Your task to perform on an android device: turn on improve location accuracy Image 0: 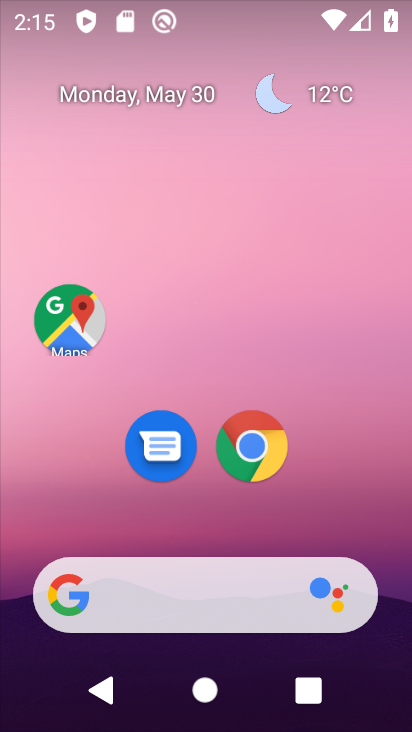
Step 0: drag from (337, 527) to (287, 193)
Your task to perform on an android device: turn on improve location accuracy Image 1: 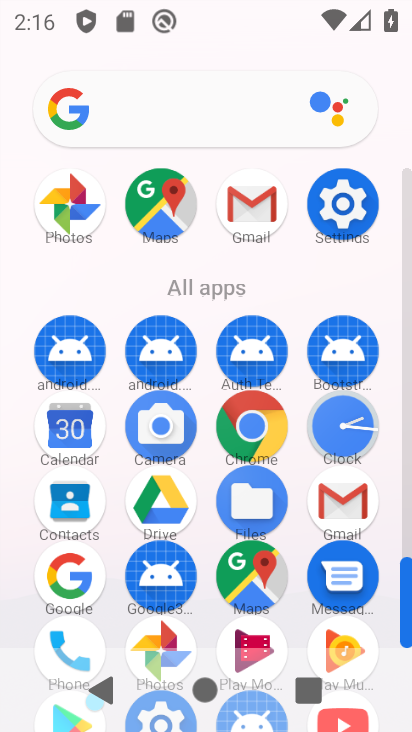
Step 1: click (342, 206)
Your task to perform on an android device: turn on improve location accuracy Image 2: 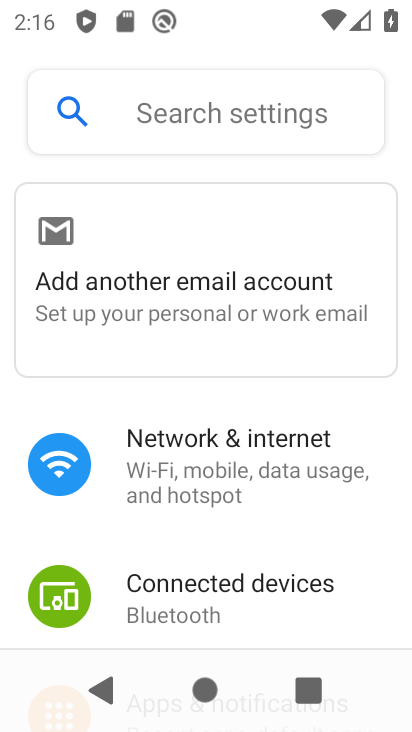
Step 2: drag from (193, 519) to (229, 421)
Your task to perform on an android device: turn on improve location accuracy Image 3: 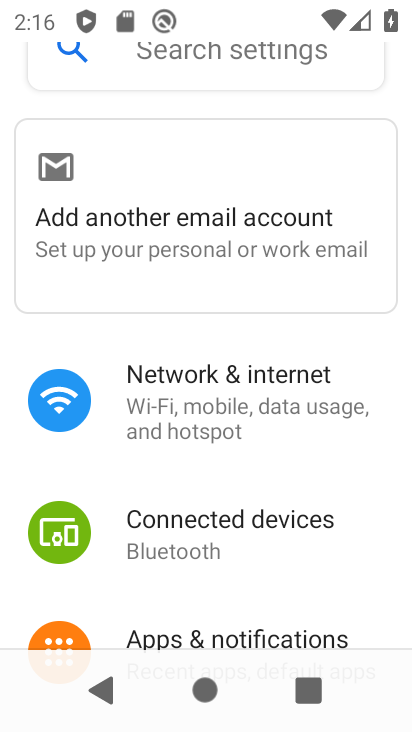
Step 3: drag from (205, 499) to (244, 352)
Your task to perform on an android device: turn on improve location accuracy Image 4: 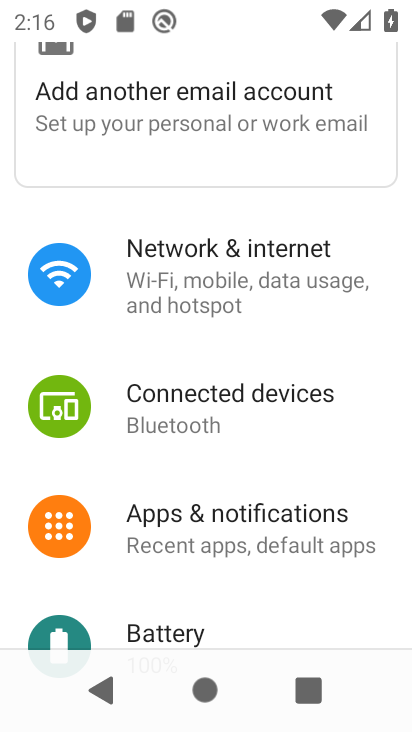
Step 4: drag from (208, 480) to (233, 382)
Your task to perform on an android device: turn on improve location accuracy Image 5: 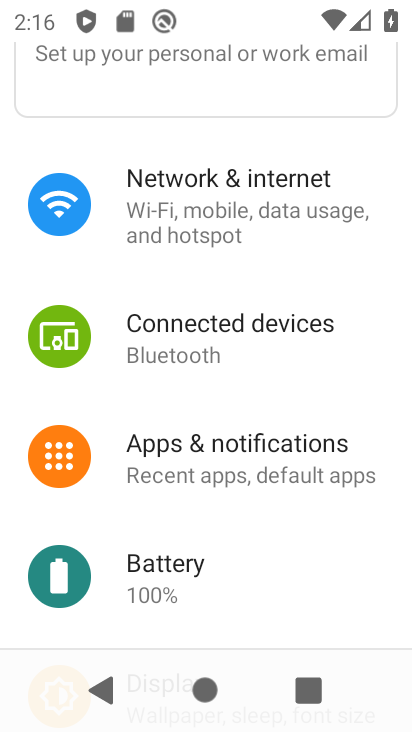
Step 5: drag from (197, 509) to (220, 434)
Your task to perform on an android device: turn on improve location accuracy Image 6: 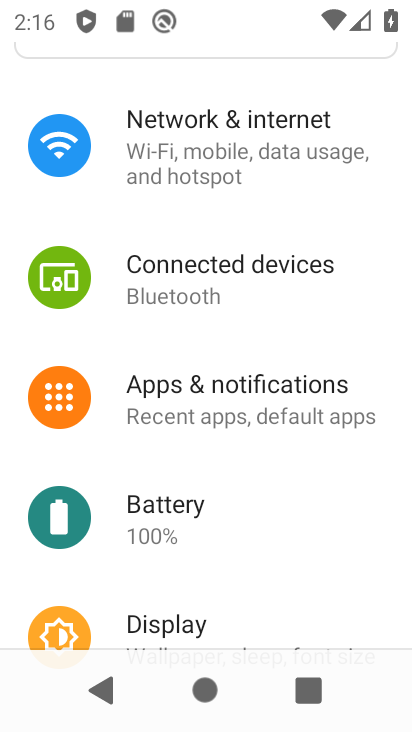
Step 6: drag from (209, 455) to (221, 379)
Your task to perform on an android device: turn on improve location accuracy Image 7: 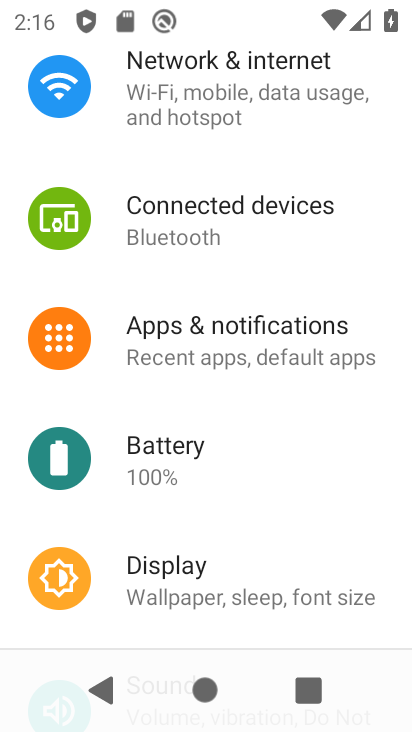
Step 7: drag from (180, 417) to (197, 349)
Your task to perform on an android device: turn on improve location accuracy Image 8: 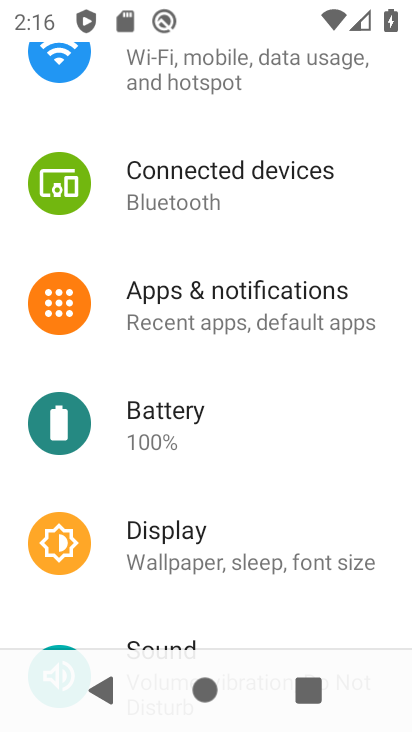
Step 8: drag from (204, 501) to (242, 408)
Your task to perform on an android device: turn on improve location accuracy Image 9: 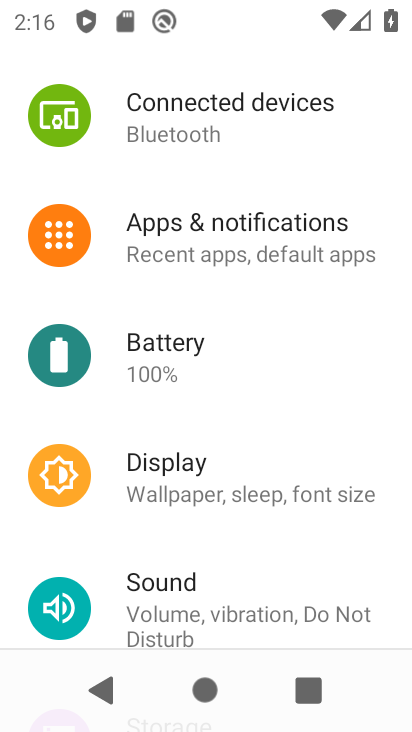
Step 9: drag from (247, 549) to (273, 446)
Your task to perform on an android device: turn on improve location accuracy Image 10: 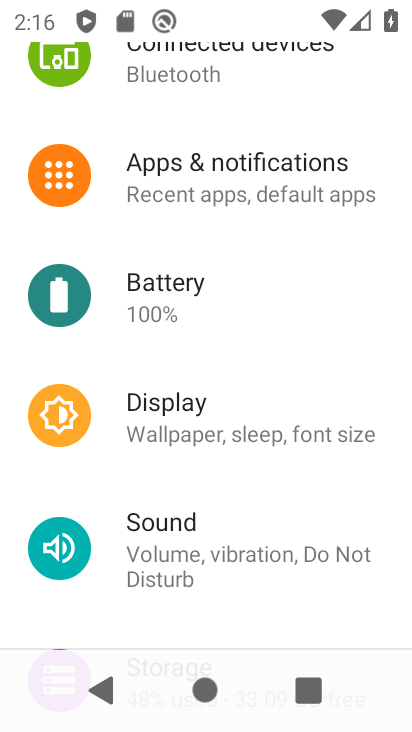
Step 10: drag from (213, 588) to (266, 430)
Your task to perform on an android device: turn on improve location accuracy Image 11: 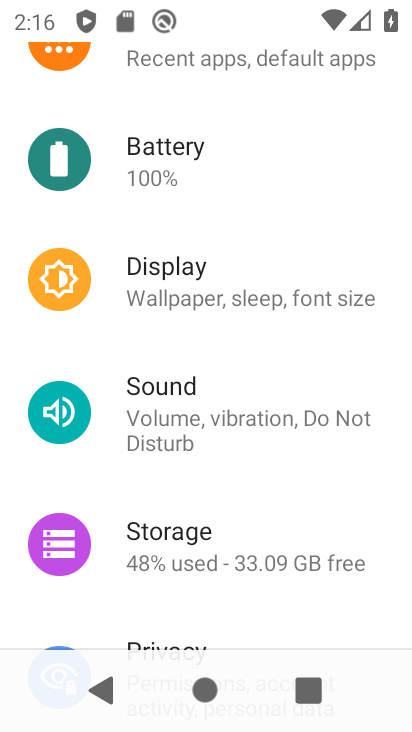
Step 11: drag from (251, 500) to (283, 388)
Your task to perform on an android device: turn on improve location accuracy Image 12: 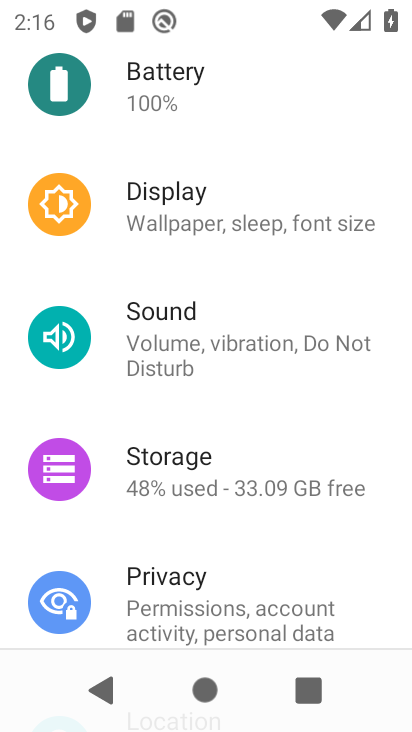
Step 12: drag from (228, 550) to (289, 426)
Your task to perform on an android device: turn on improve location accuracy Image 13: 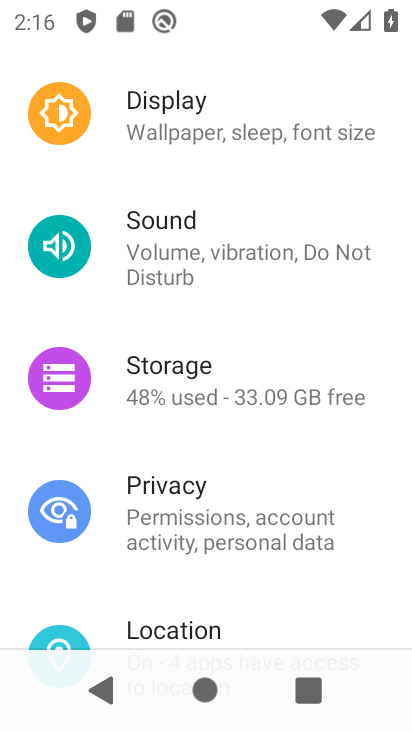
Step 13: drag from (223, 596) to (302, 430)
Your task to perform on an android device: turn on improve location accuracy Image 14: 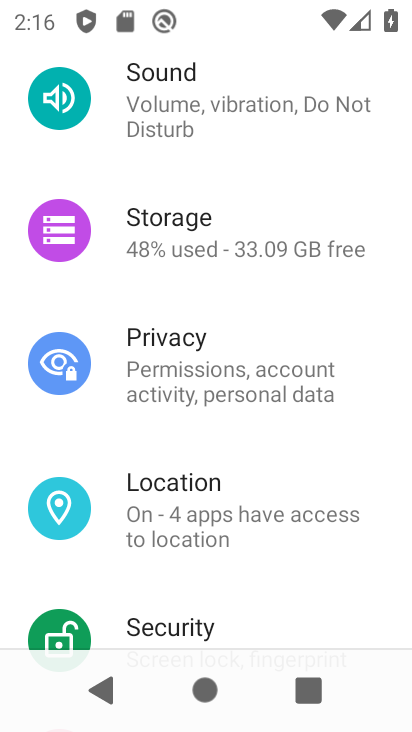
Step 14: click (222, 519)
Your task to perform on an android device: turn on improve location accuracy Image 15: 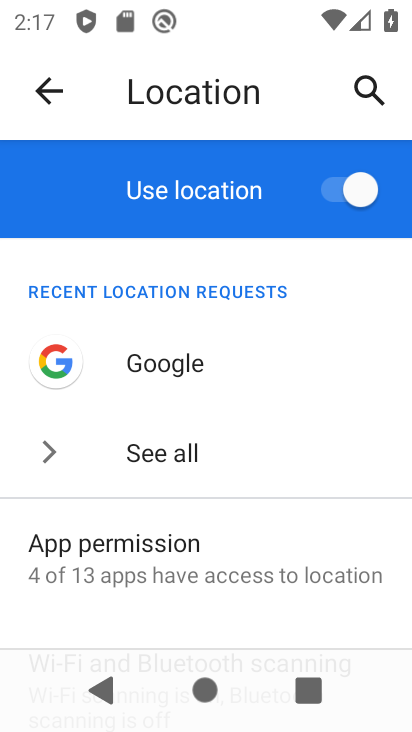
Step 15: drag from (228, 541) to (274, 360)
Your task to perform on an android device: turn on improve location accuracy Image 16: 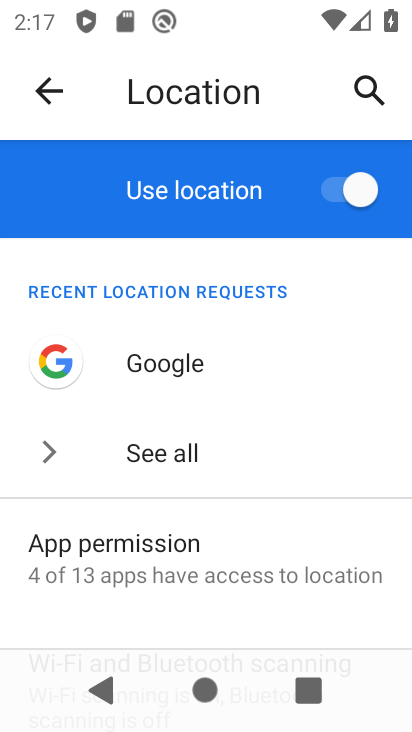
Step 16: drag from (252, 258) to (329, 92)
Your task to perform on an android device: turn on improve location accuracy Image 17: 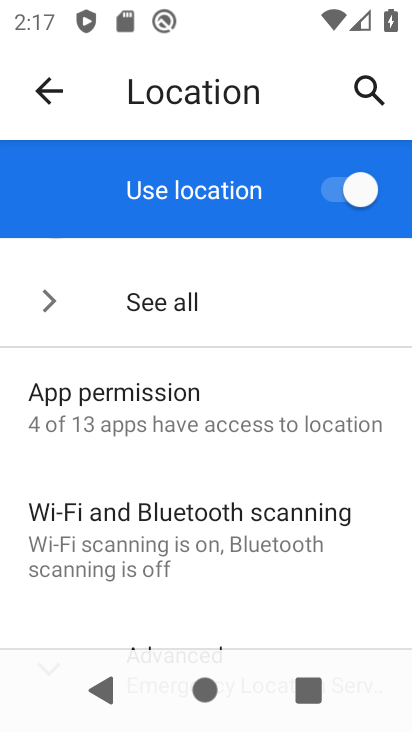
Step 17: drag from (167, 618) to (213, 102)
Your task to perform on an android device: turn on improve location accuracy Image 18: 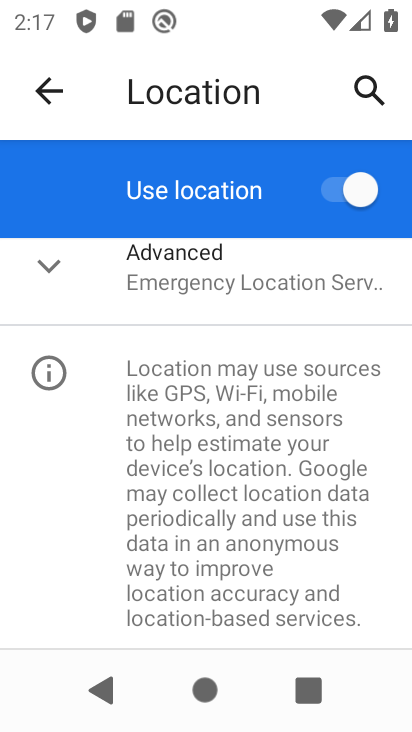
Step 18: click (235, 295)
Your task to perform on an android device: turn on improve location accuracy Image 19: 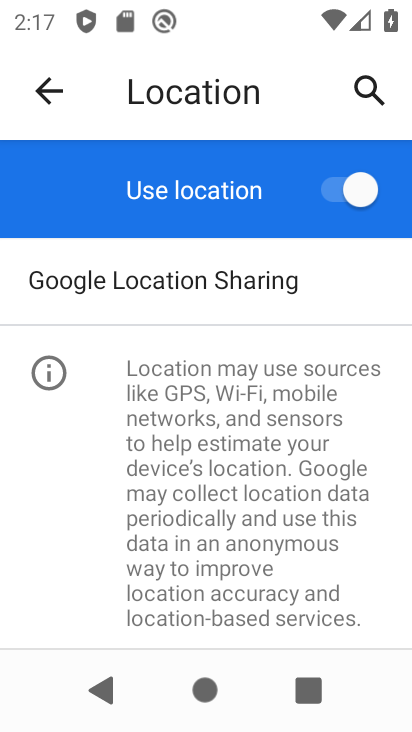
Step 19: drag from (235, 303) to (219, 527)
Your task to perform on an android device: turn on improve location accuracy Image 20: 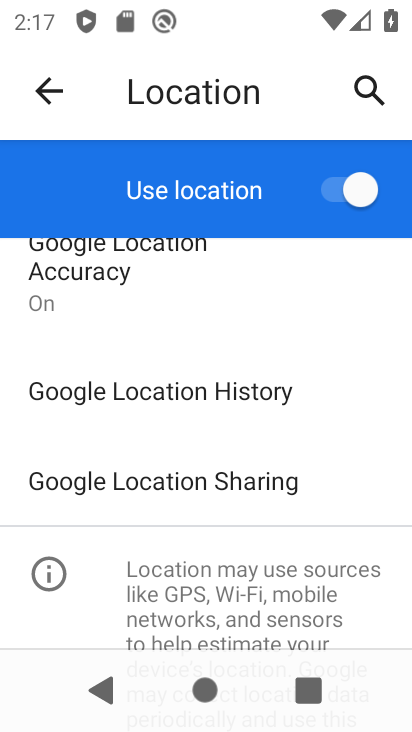
Step 20: click (138, 271)
Your task to perform on an android device: turn on improve location accuracy Image 21: 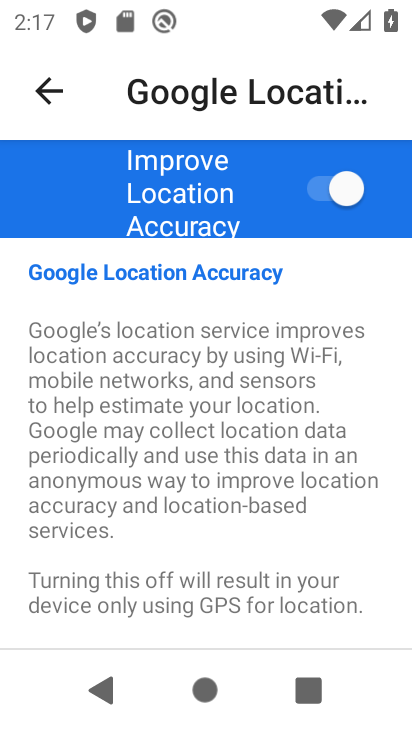
Step 21: task complete